Your task to perform on an android device: turn on javascript in the chrome app Image 0: 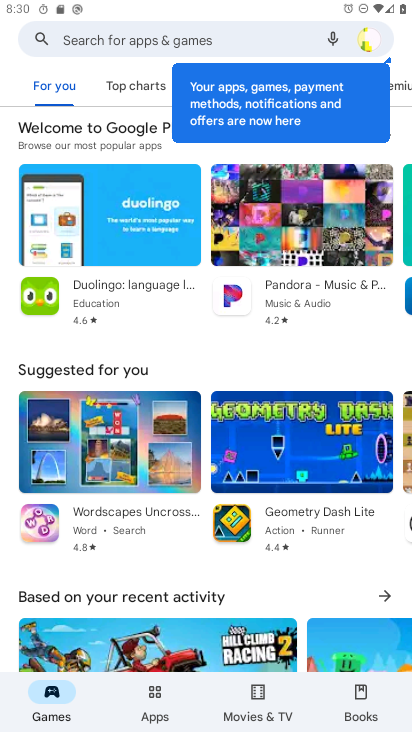
Step 0: drag from (197, 182) to (221, 502)
Your task to perform on an android device: turn on javascript in the chrome app Image 1: 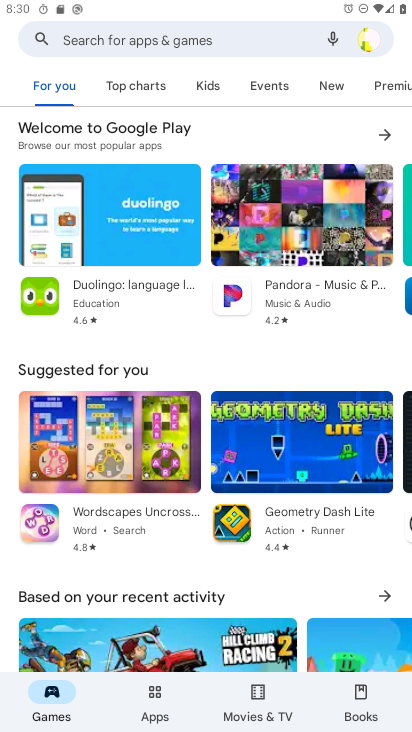
Step 1: drag from (171, 32) to (190, 508)
Your task to perform on an android device: turn on javascript in the chrome app Image 2: 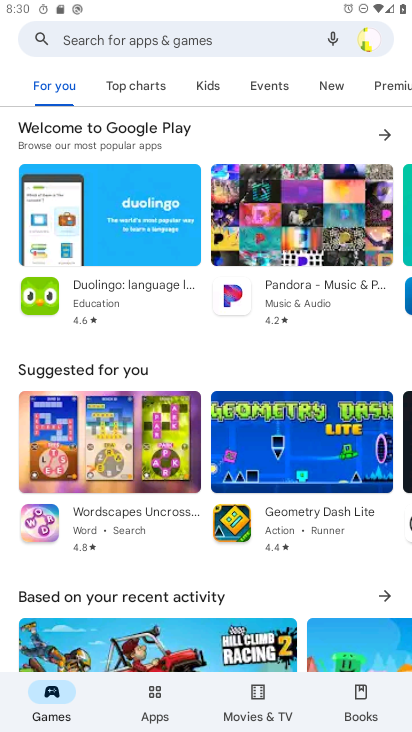
Step 2: press home button
Your task to perform on an android device: turn on javascript in the chrome app Image 3: 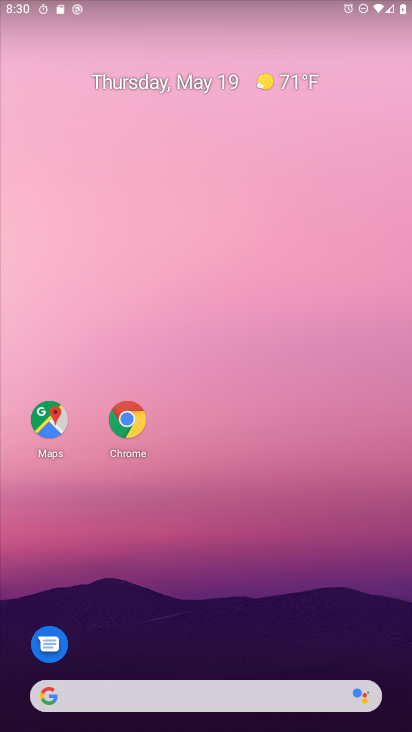
Step 3: click (127, 418)
Your task to perform on an android device: turn on javascript in the chrome app Image 4: 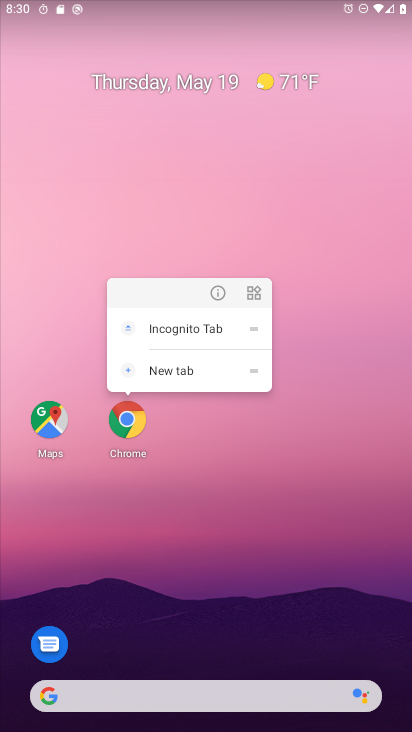
Step 4: click (128, 426)
Your task to perform on an android device: turn on javascript in the chrome app Image 5: 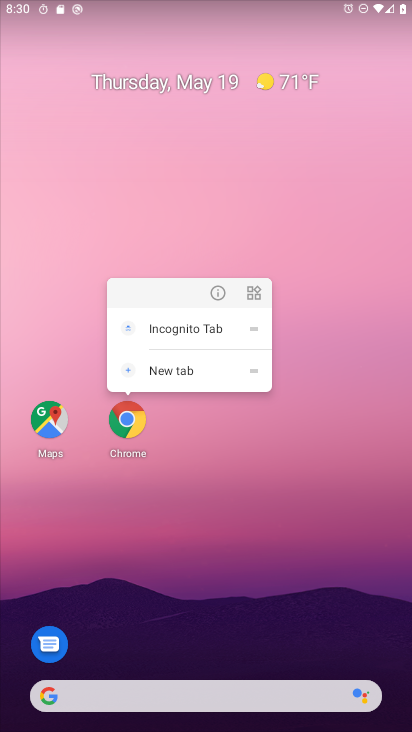
Step 5: click (130, 436)
Your task to perform on an android device: turn on javascript in the chrome app Image 6: 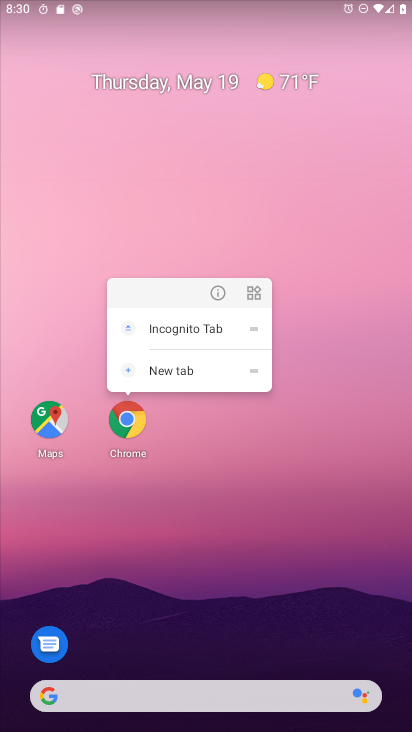
Step 6: click (139, 419)
Your task to perform on an android device: turn on javascript in the chrome app Image 7: 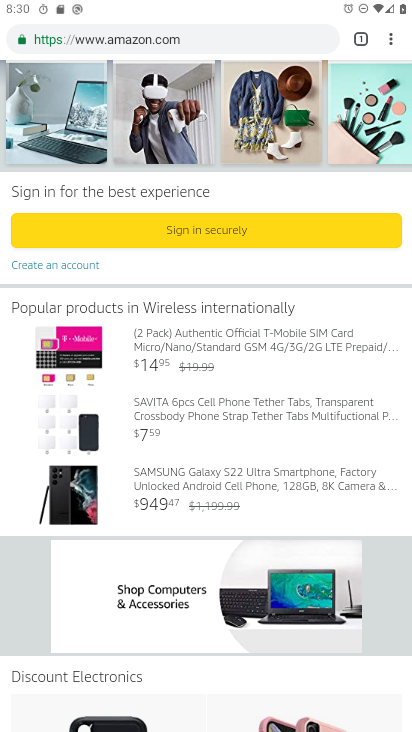
Step 7: click (392, 34)
Your task to perform on an android device: turn on javascript in the chrome app Image 8: 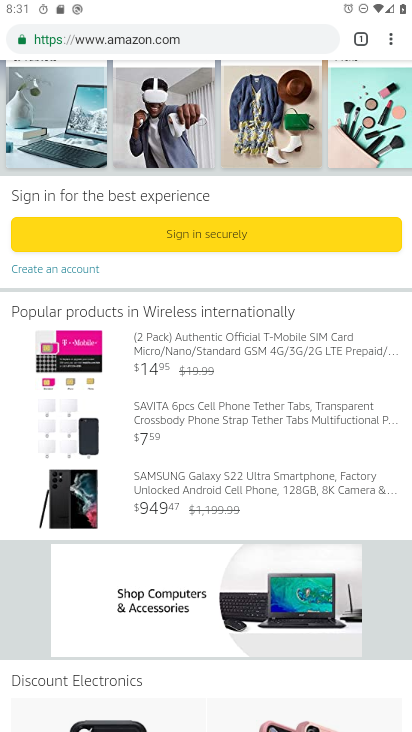
Step 8: click (390, 36)
Your task to perform on an android device: turn on javascript in the chrome app Image 9: 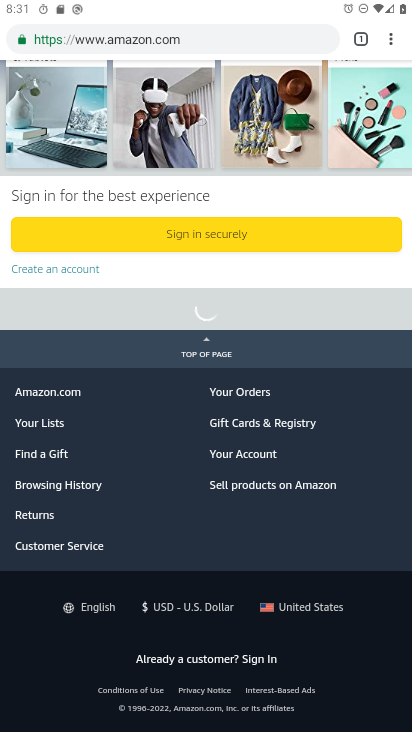
Step 9: click (391, 36)
Your task to perform on an android device: turn on javascript in the chrome app Image 10: 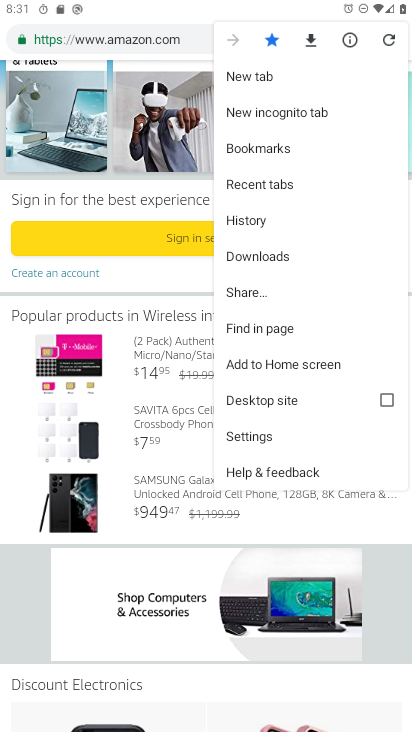
Step 10: click (271, 431)
Your task to perform on an android device: turn on javascript in the chrome app Image 11: 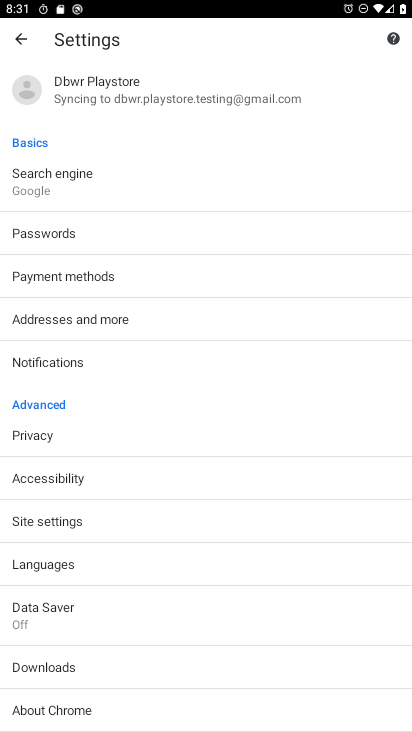
Step 11: click (47, 516)
Your task to perform on an android device: turn on javascript in the chrome app Image 12: 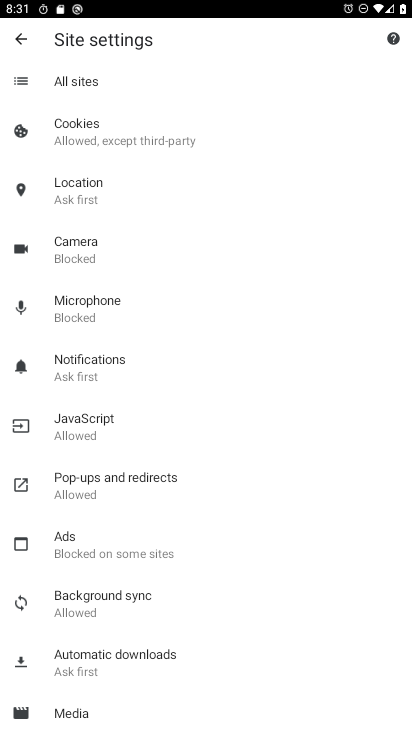
Step 12: click (78, 429)
Your task to perform on an android device: turn on javascript in the chrome app Image 13: 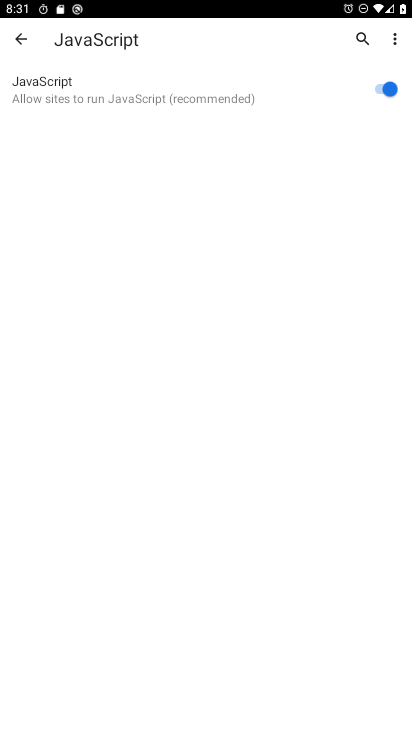
Step 13: task complete